Your task to perform on an android device: change the clock display to analog Image 0: 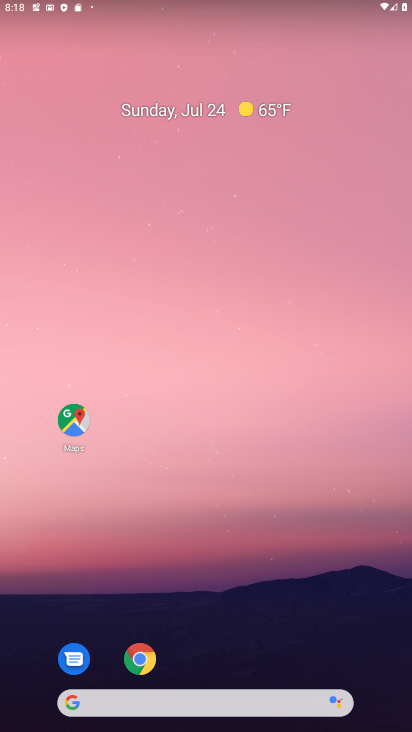
Step 0: drag from (265, 671) to (243, 4)
Your task to perform on an android device: change the clock display to analog Image 1: 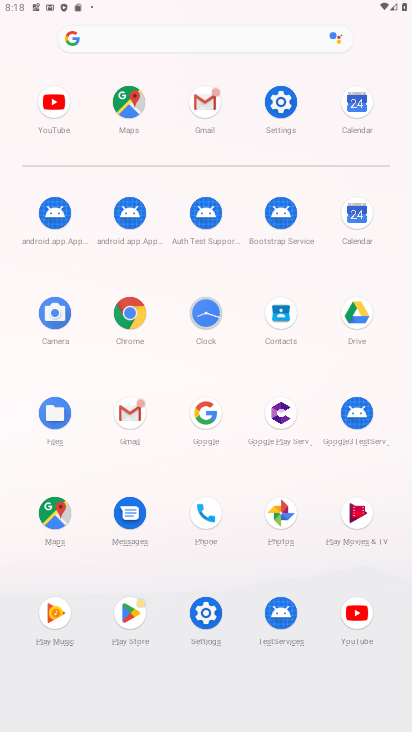
Step 1: click (199, 316)
Your task to perform on an android device: change the clock display to analog Image 2: 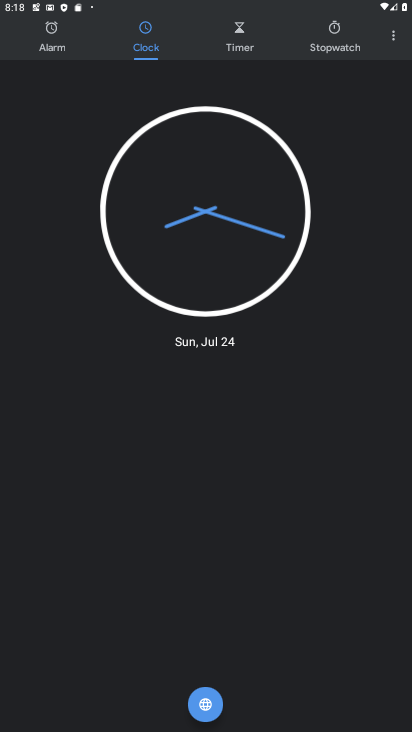
Step 2: click (394, 40)
Your task to perform on an android device: change the clock display to analog Image 3: 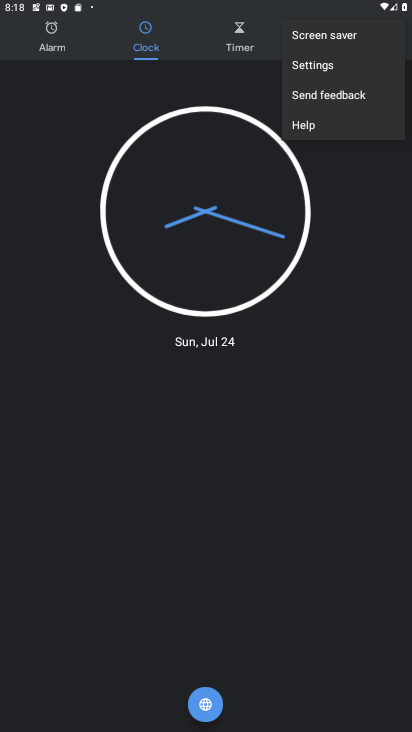
Step 3: click (316, 64)
Your task to perform on an android device: change the clock display to analog Image 4: 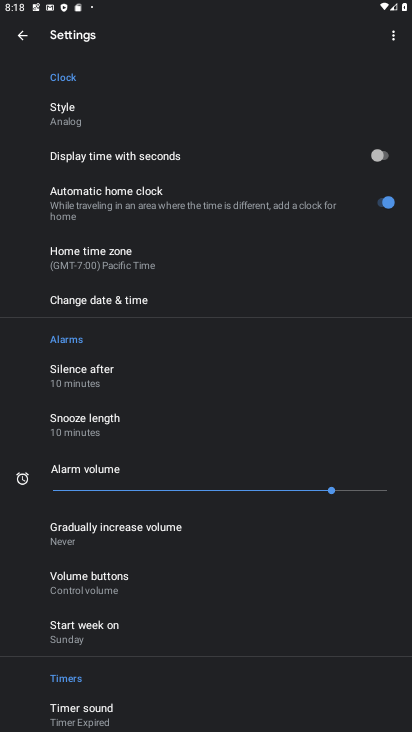
Step 4: task complete